Your task to perform on an android device: turn off notifications in google photos Image 0: 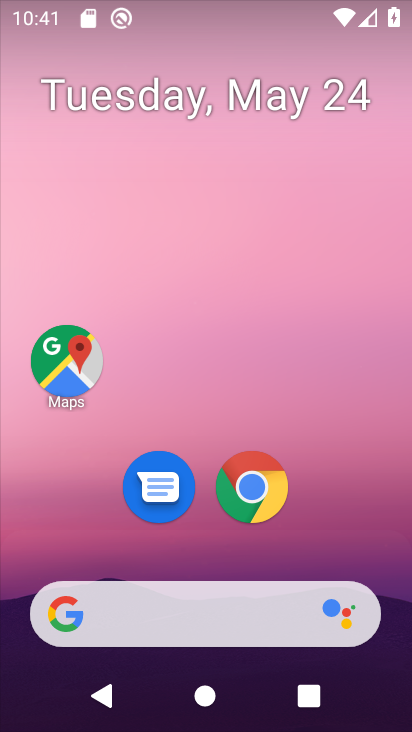
Step 0: drag from (222, 511) to (283, 87)
Your task to perform on an android device: turn off notifications in google photos Image 1: 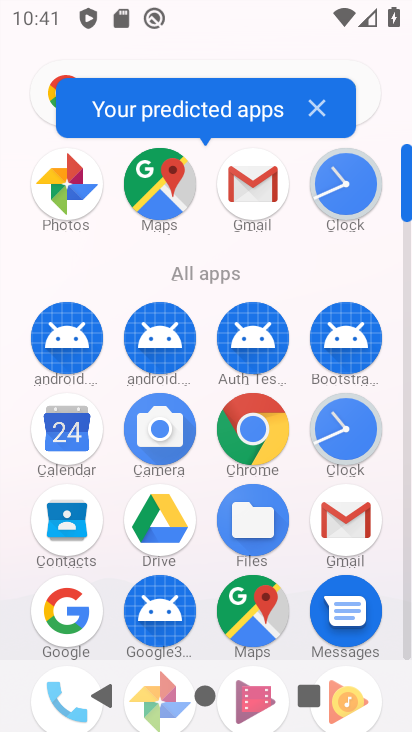
Step 1: drag from (247, 273) to (266, 138)
Your task to perform on an android device: turn off notifications in google photos Image 2: 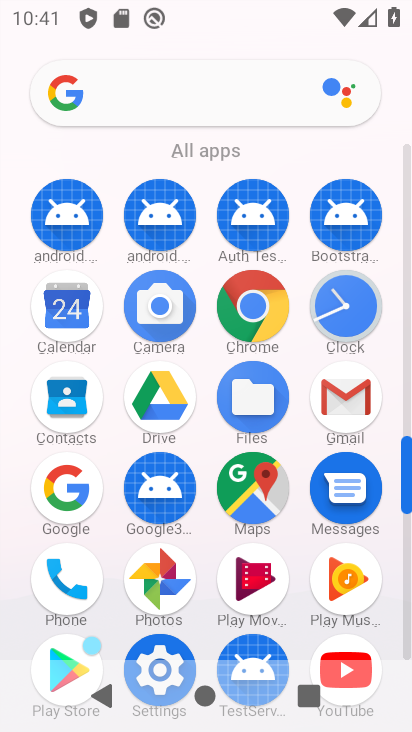
Step 2: click (159, 580)
Your task to perform on an android device: turn off notifications in google photos Image 3: 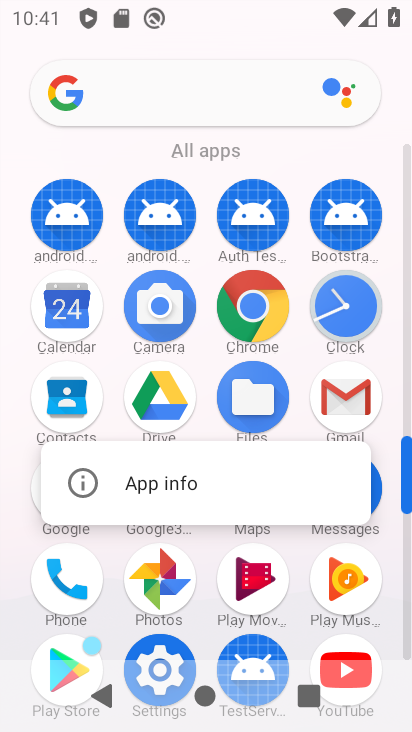
Step 3: click (128, 469)
Your task to perform on an android device: turn off notifications in google photos Image 4: 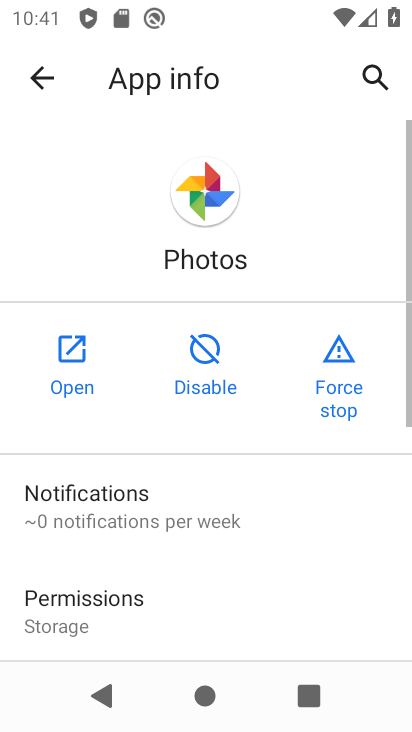
Step 4: click (128, 486)
Your task to perform on an android device: turn off notifications in google photos Image 5: 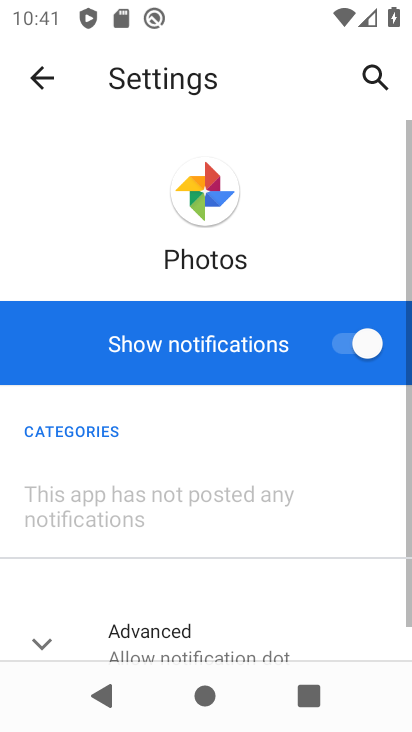
Step 5: click (364, 336)
Your task to perform on an android device: turn off notifications in google photos Image 6: 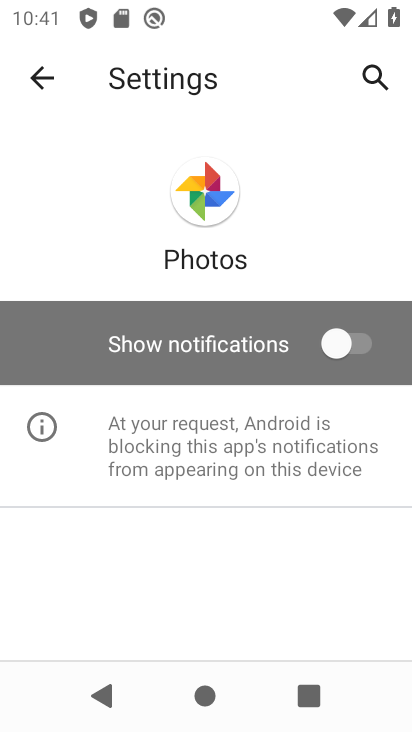
Step 6: task complete